Your task to perform on an android device: turn off location Image 0: 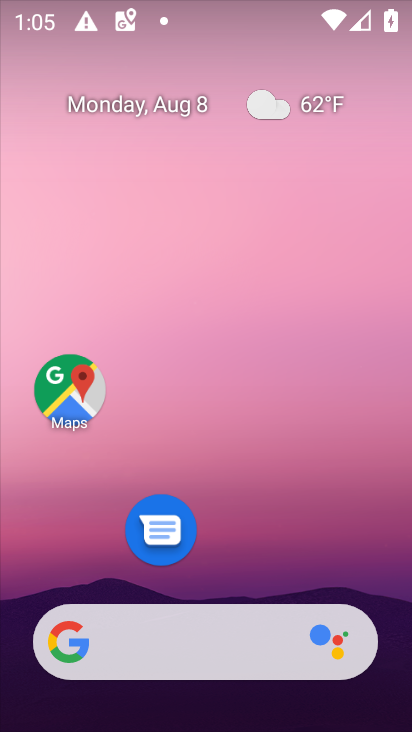
Step 0: drag from (240, 587) to (229, 109)
Your task to perform on an android device: turn off location Image 1: 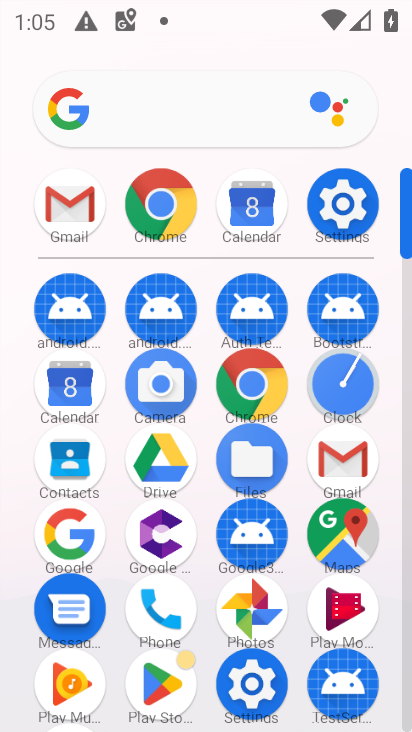
Step 1: click (333, 201)
Your task to perform on an android device: turn off location Image 2: 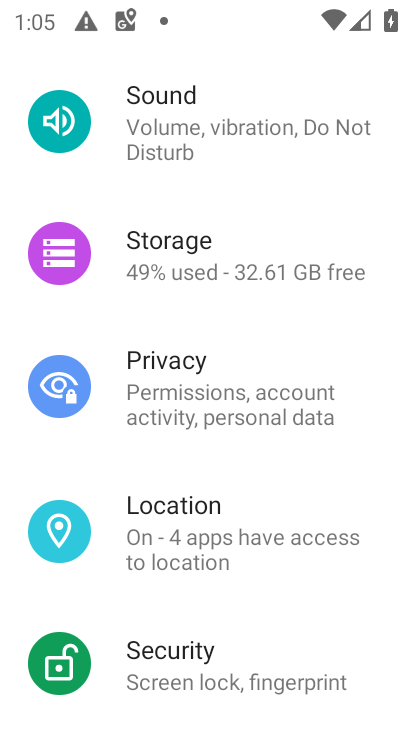
Step 2: click (173, 511)
Your task to perform on an android device: turn off location Image 3: 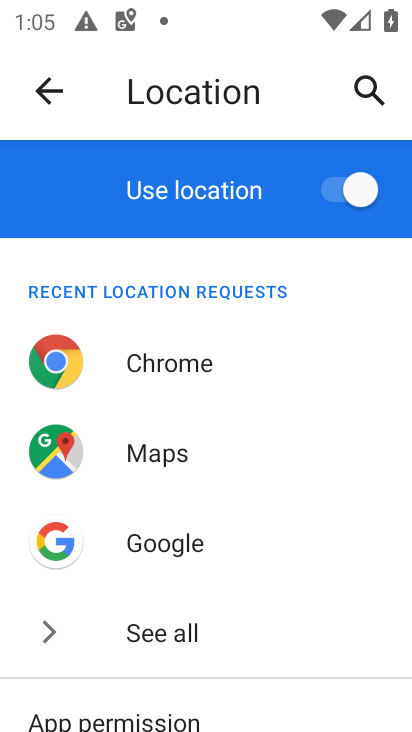
Step 3: click (344, 195)
Your task to perform on an android device: turn off location Image 4: 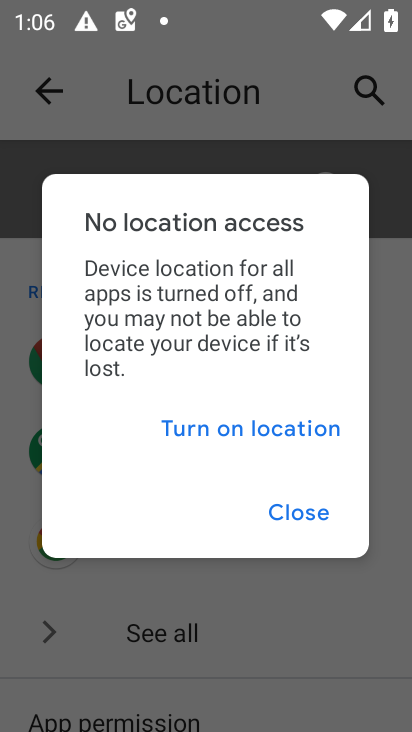
Step 4: click (284, 510)
Your task to perform on an android device: turn off location Image 5: 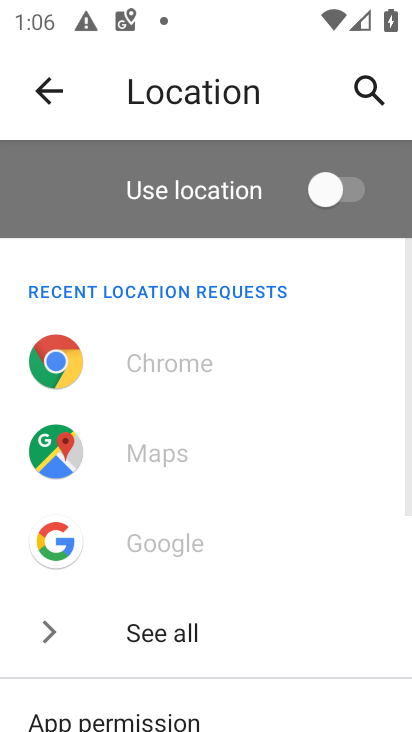
Step 5: task complete